Your task to perform on an android device: open a bookmark in the chrome app Image 0: 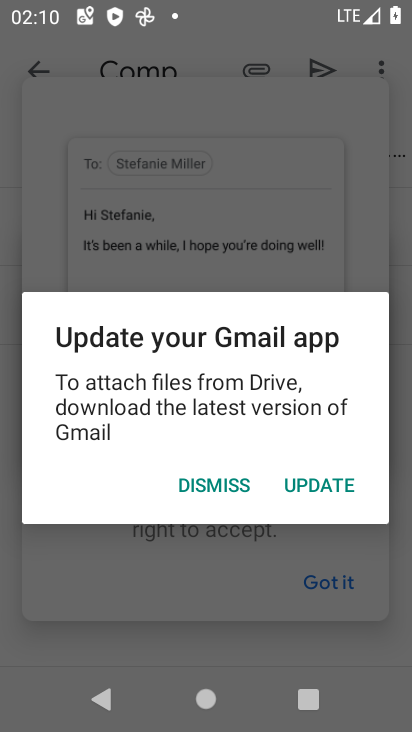
Step 0: press home button
Your task to perform on an android device: open a bookmark in the chrome app Image 1: 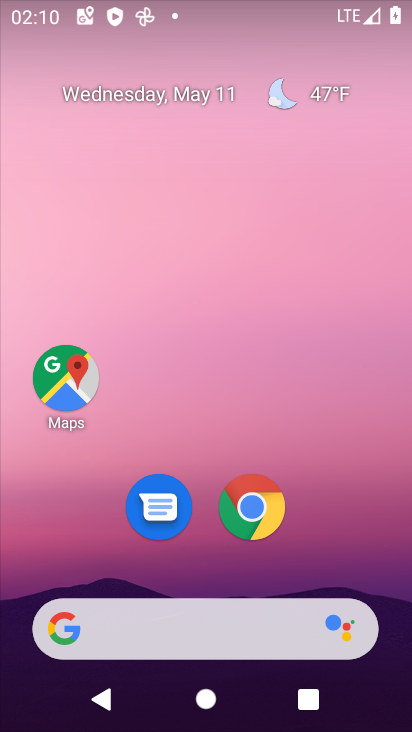
Step 1: click (264, 501)
Your task to perform on an android device: open a bookmark in the chrome app Image 2: 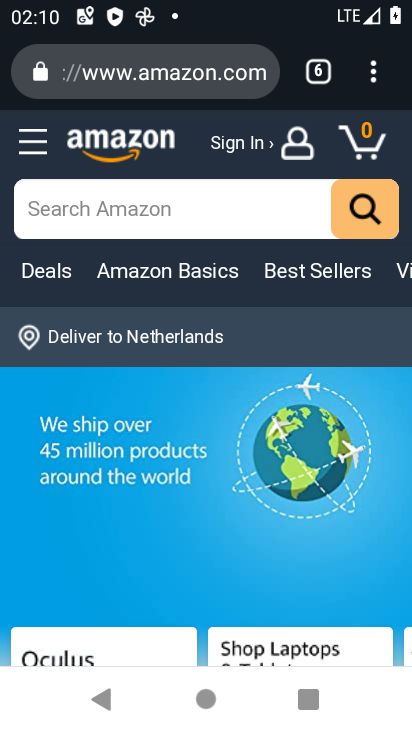
Step 2: click (381, 82)
Your task to perform on an android device: open a bookmark in the chrome app Image 3: 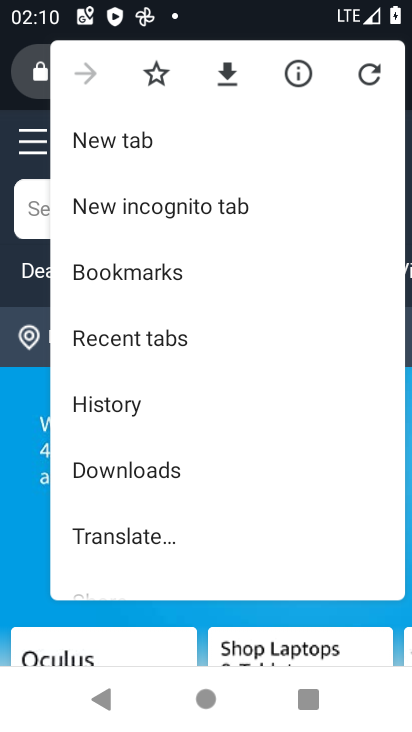
Step 3: click (154, 263)
Your task to perform on an android device: open a bookmark in the chrome app Image 4: 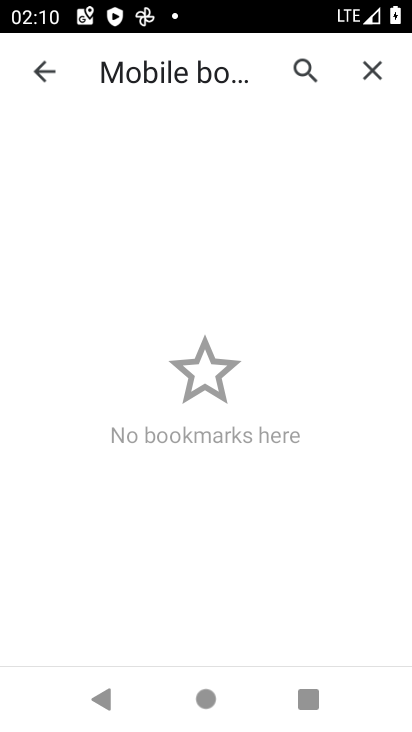
Step 4: task complete